Your task to perform on an android device: Go to network settings Image 0: 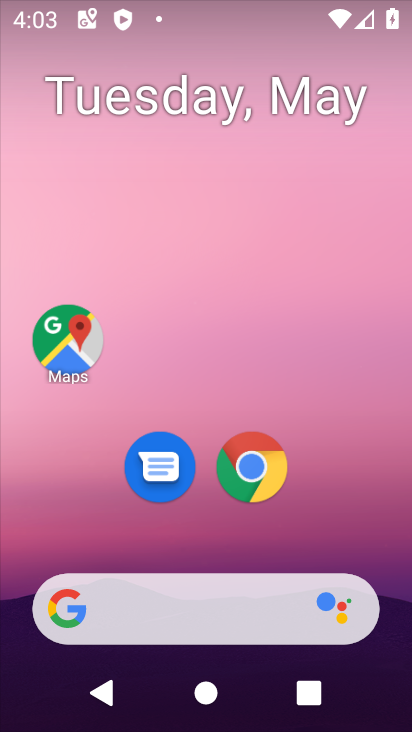
Step 0: drag from (167, 725) to (187, 91)
Your task to perform on an android device: Go to network settings Image 1: 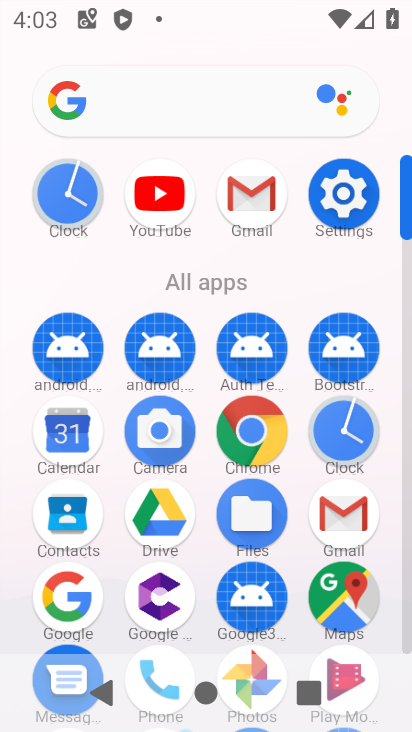
Step 1: click (351, 202)
Your task to perform on an android device: Go to network settings Image 2: 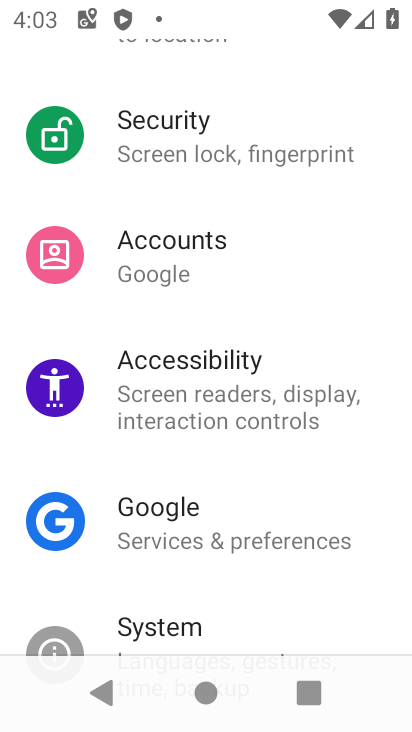
Step 2: drag from (300, 109) to (282, 668)
Your task to perform on an android device: Go to network settings Image 3: 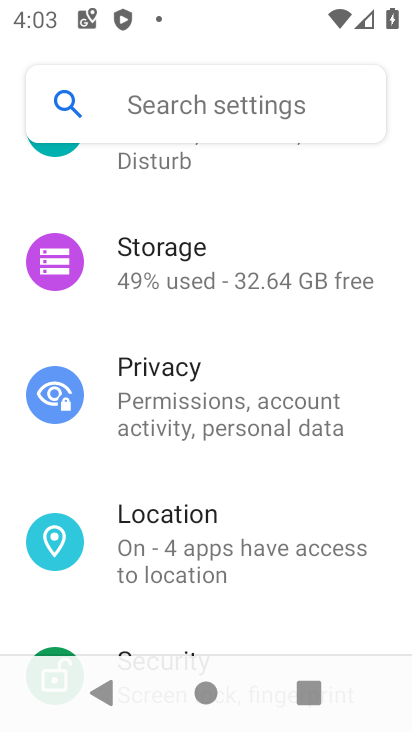
Step 3: drag from (254, 204) to (217, 726)
Your task to perform on an android device: Go to network settings Image 4: 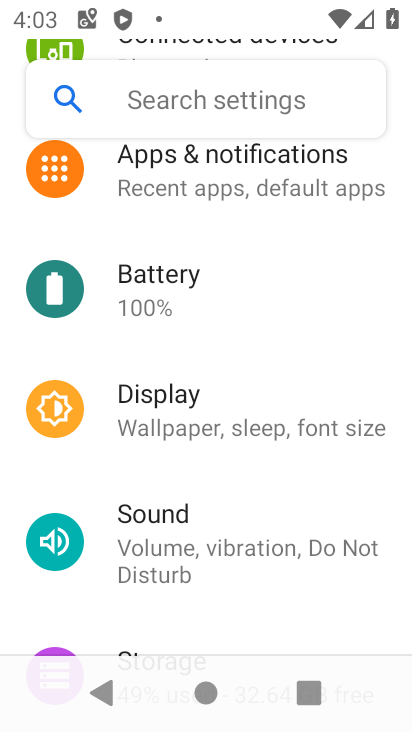
Step 4: drag from (268, 326) to (249, 572)
Your task to perform on an android device: Go to network settings Image 5: 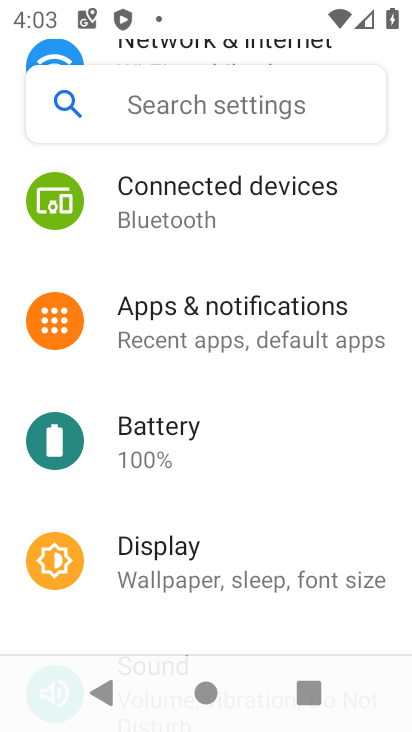
Step 5: drag from (232, 241) to (228, 618)
Your task to perform on an android device: Go to network settings Image 6: 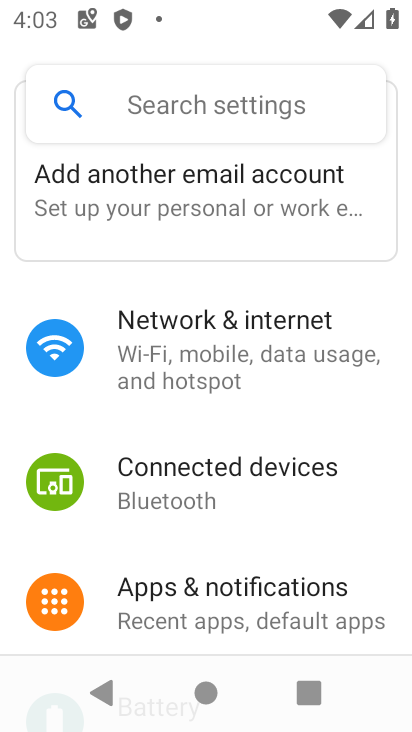
Step 6: click (207, 361)
Your task to perform on an android device: Go to network settings Image 7: 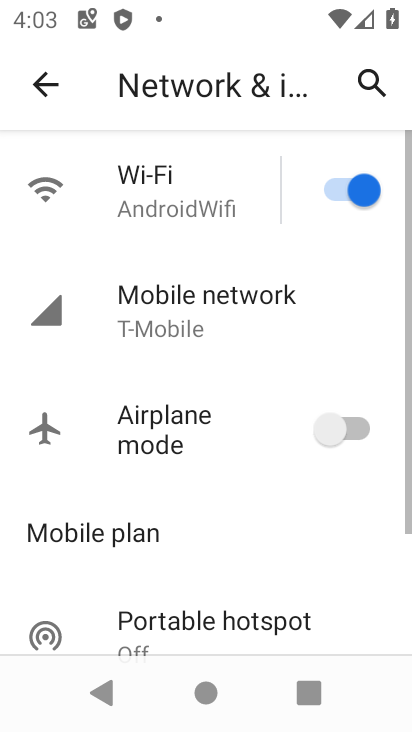
Step 7: drag from (215, 585) to (220, 152)
Your task to perform on an android device: Go to network settings Image 8: 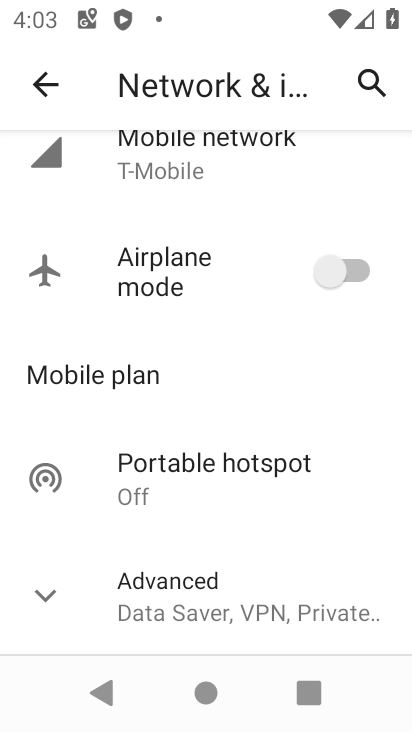
Step 8: click (198, 151)
Your task to perform on an android device: Go to network settings Image 9: 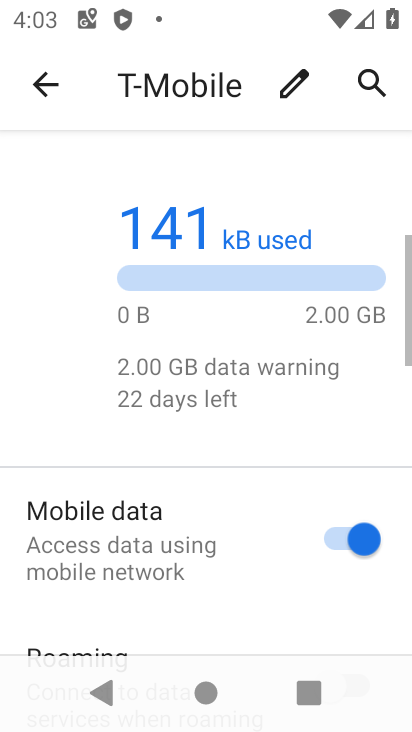
Step 9: drag from (230, 594) to (260, 139)
Your task to perform on an android device: Go to network settings Image 10: 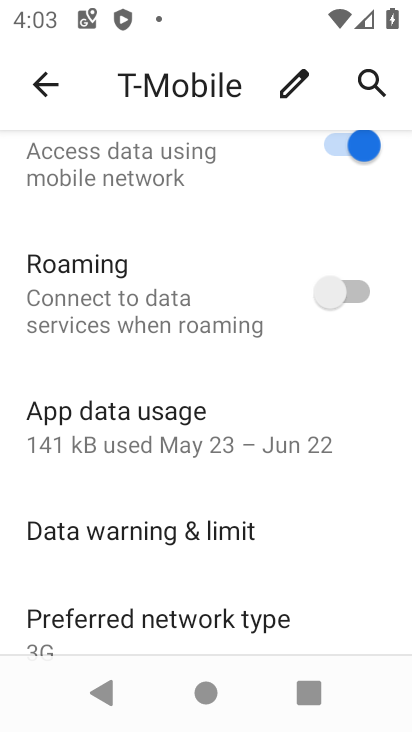
Step 10: drag from (261, 520) to (281, 182)
Your task to perform on an android device: Go to network settings Image 11: 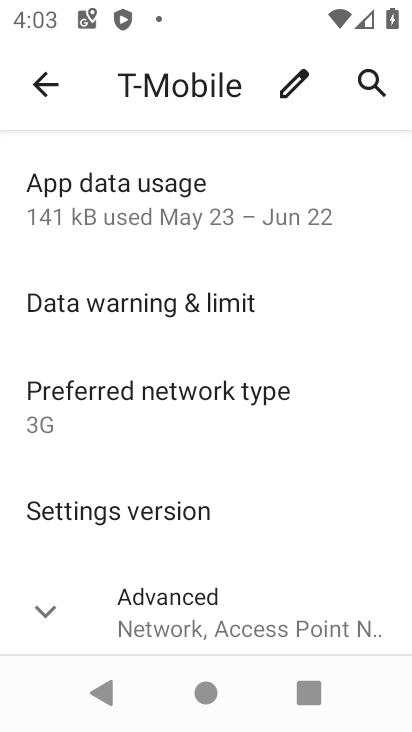
Step 11: click (270, 638)
Your task to perform on an android device: Go to network settings Image 12: 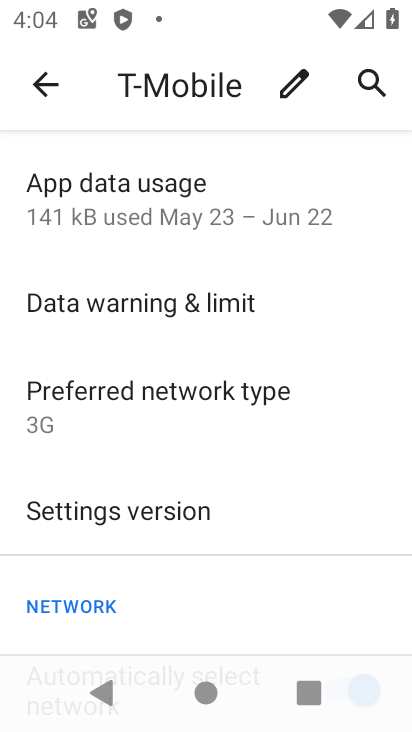
Step 12: task complete